Your task to perform on an android device: toggle wifi Image 0: 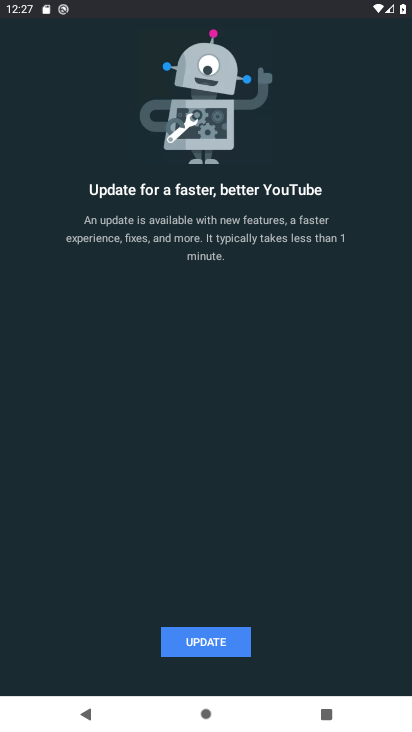
Step 0: press home button
Your task to perform on an android device: toggle wifi Image 1: 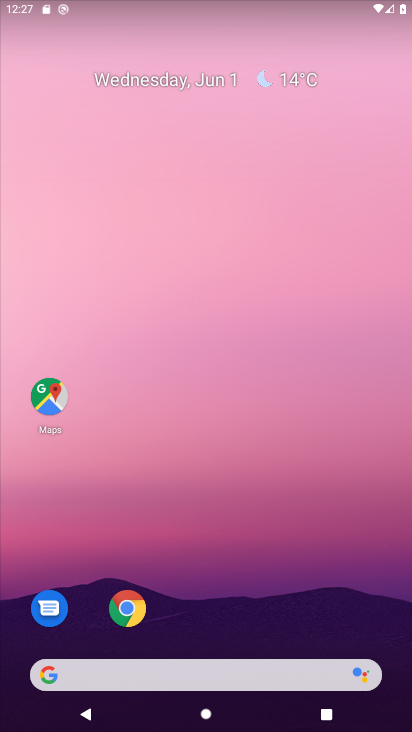
Step 1: drag from (217, 619) to (272, 0)
Your task to perform on an android device: toggle wifi Image 2: 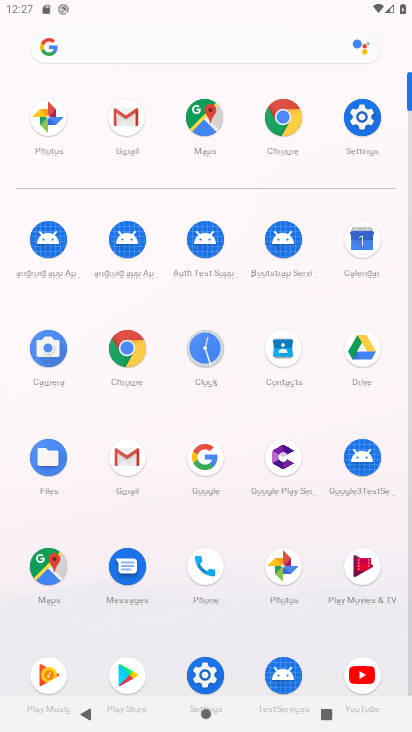
Step 2: click (372, 122)
Your task to perform on an android device: toggle wifi Image 3: 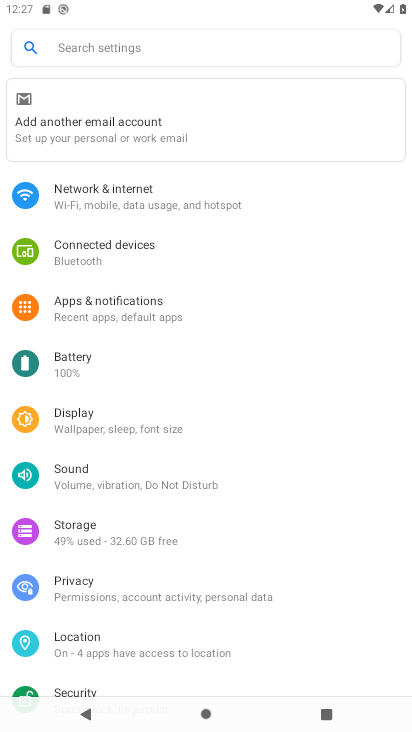
Step 3: click (109, 203)
Your task to perform on an android device: toggle wifi Image 4: 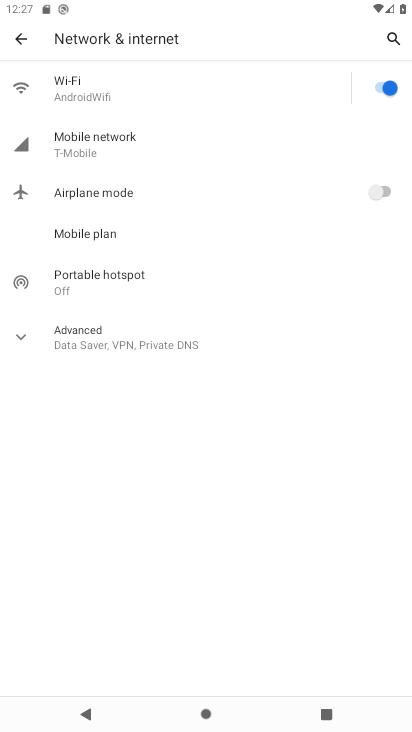
Step 4: click (375, 89)
Your task to perform on an android device: toggle wifi Image 5: 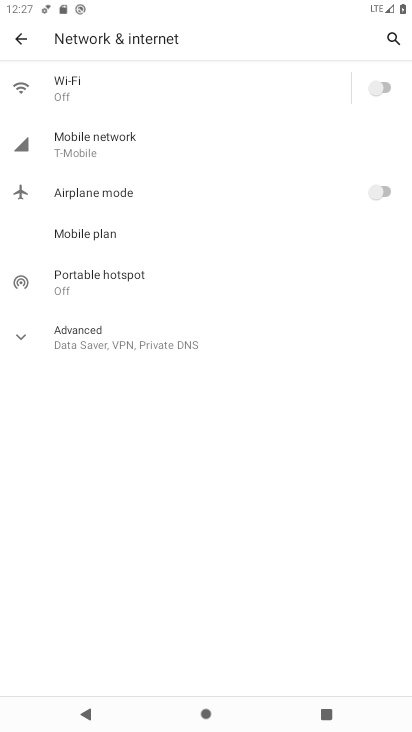
Step 5: task complete